Your task to perform on an android device: turn on showing notifications on the lock screen Image 0: 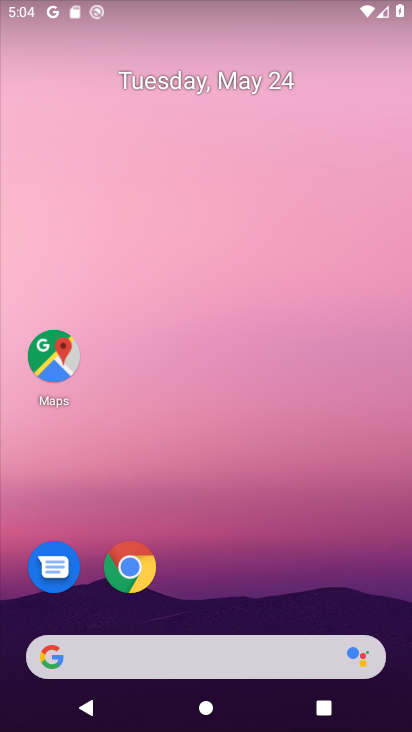
Step 0: drag from (233, 593) to (239, 258)
Your task to perform on an android device: turn on showing notifications on the lock screen Image 1: 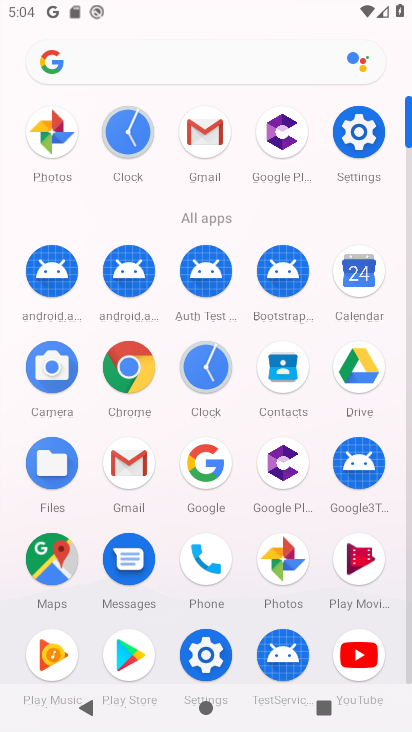
Step 1: click (358, 132)
Your task to perform on an android device: turn on showing notifications on the lock screen Image 2: 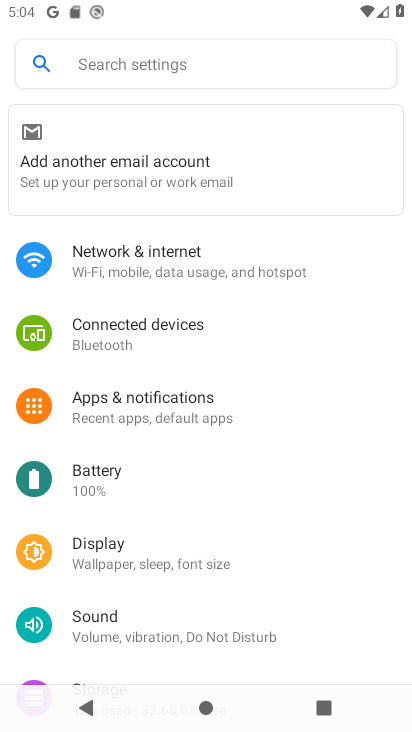
Step 2: drag from (158, 452) to (200, 335)
Your task to perform on an android device: turn on showing notifications on the lock screen Image 3: 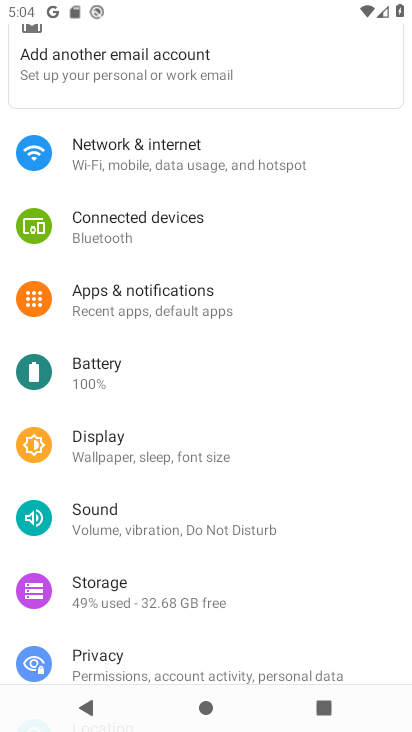
Step 3: click (187, 303)
Your task to perform on an android device: turn on showing notifications on the lock screen Image 4: 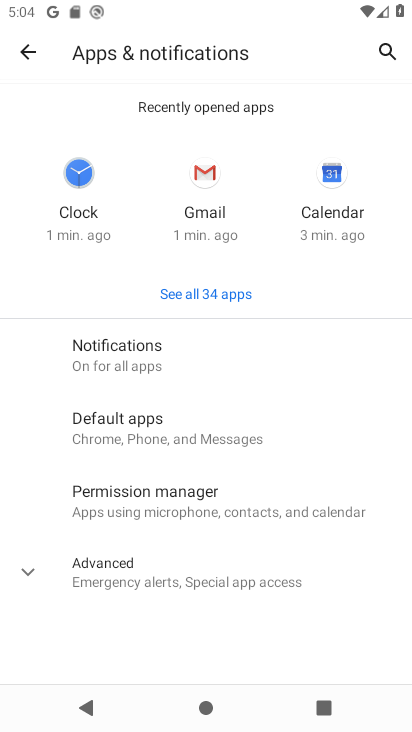
Step 4: click (126, 364)
Your task to perform on an android device: turn on showing notifications on the lock screen Image 5: 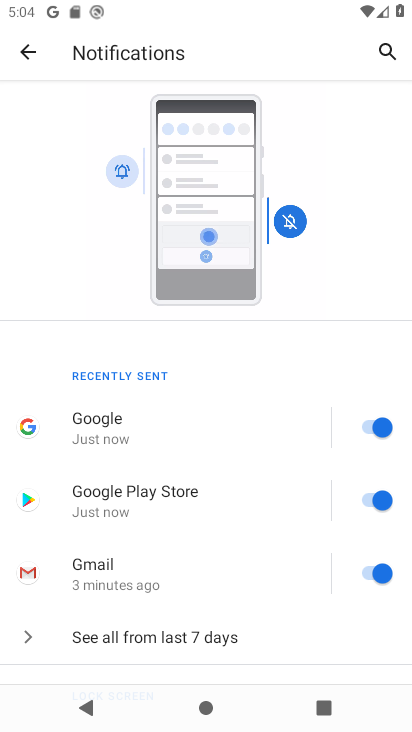
Step 5: drag from (156, 530) to (199, 396)
Your task to perform on an android device: turn on showing notifications on the lock screen Image 6: 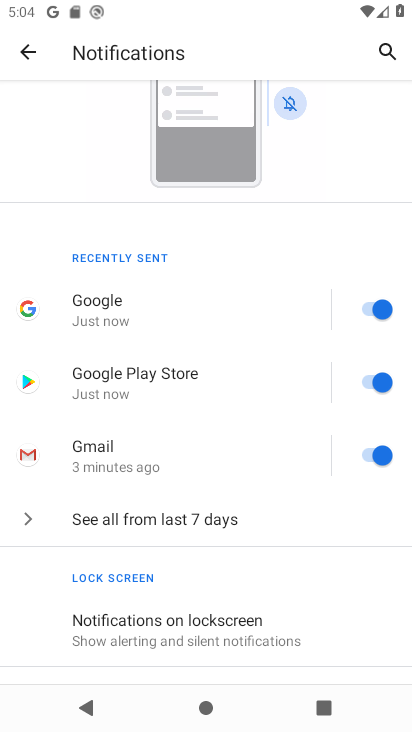
Step 6: drag from (163, 572) to (221, 467)
Your task to perform on an android device: turn on showing notifications on the lock screen Image 7: 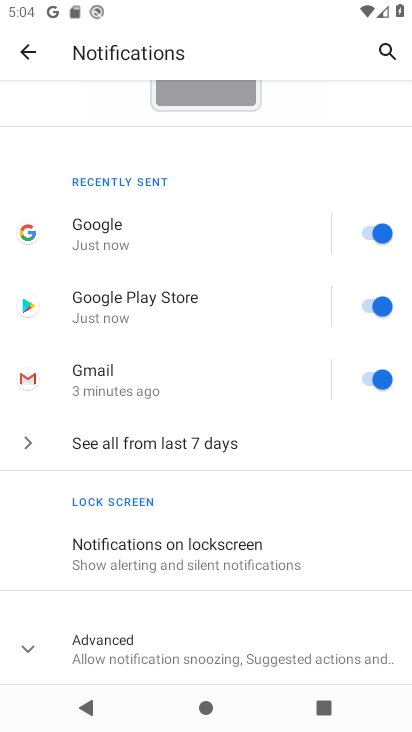
Step 7: click (197, 559)
Your task to perform on an android device: turn on showing notifications on the lock screen Image 8: 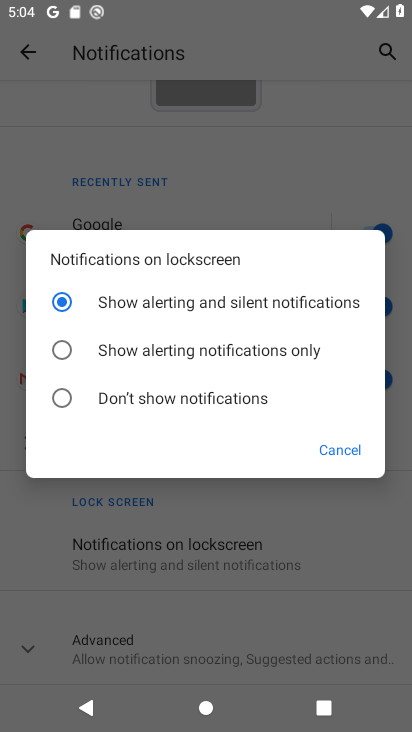
Step 8: click (65, 304)
Your task to perform on an android device: turn on showing notifications on the lock screen Image 9: 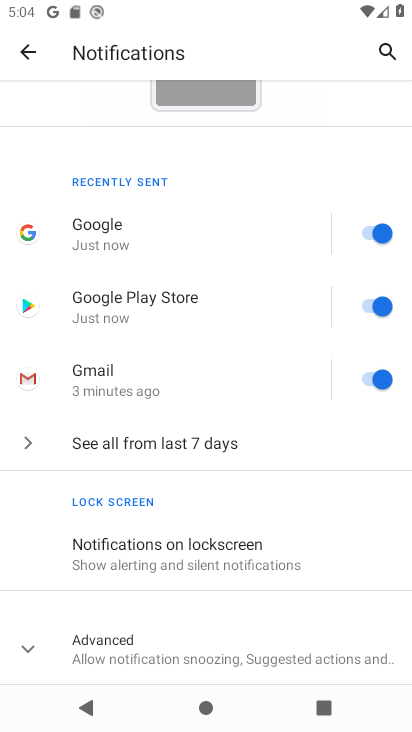
Step 9: task complete